Your task to perform on an android device: Open the calendar app, open the side menu, and click the "Day" option Image 0: 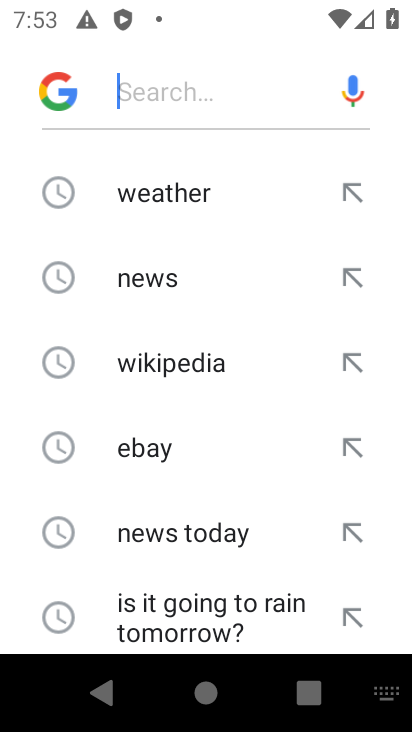
Step 0: press home button
Your task to perform on an android device: Open the calendar app, open the side menu, and click the "Day" option Image 1: 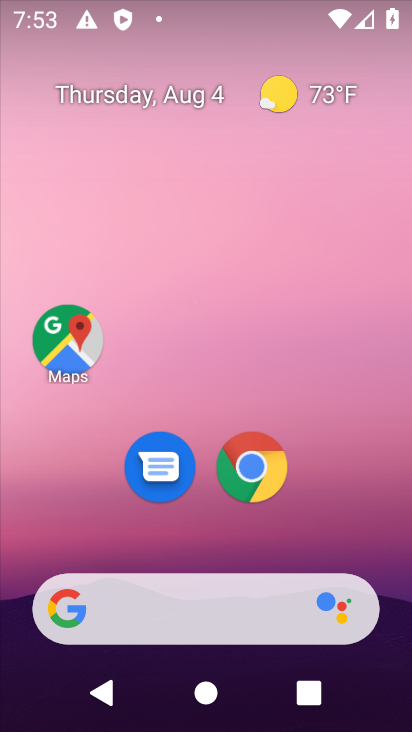
Step 1: drag from (339, 523) to (357, 110)
Your task to perform on an android device: Open the calendar app, open the side menu, and click the "Day" option Image 2: 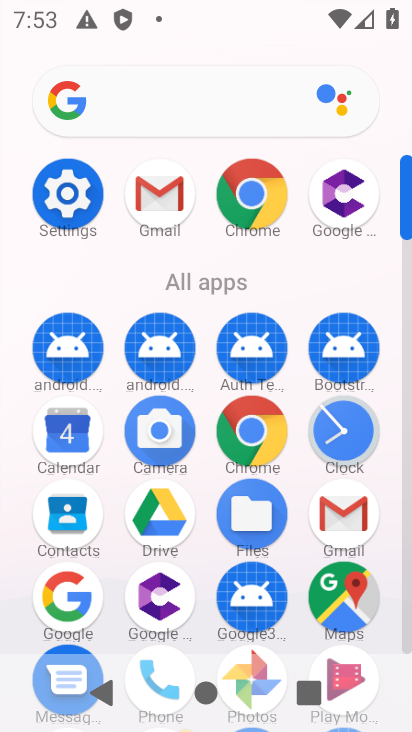
Step 2: click (62, 424)
Your task to perform on an android device: Open the calendar app, open the side menu, and click the "Day" option Image 3: 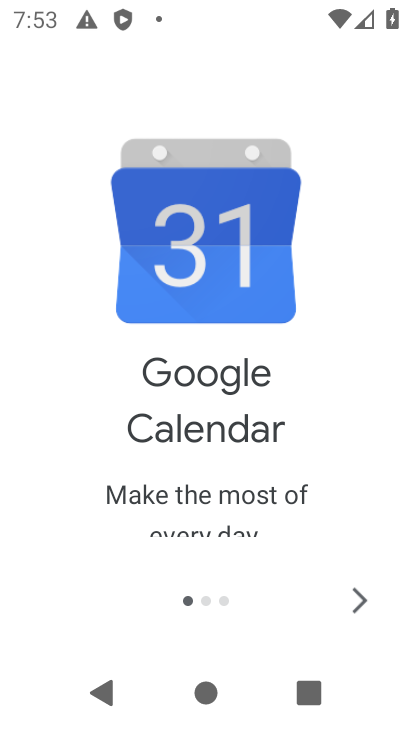
Step 3: click (361, 591)
Your task to perform on an android device: Open the calendar app, open the side menu, and click the "Day" option Image 4: 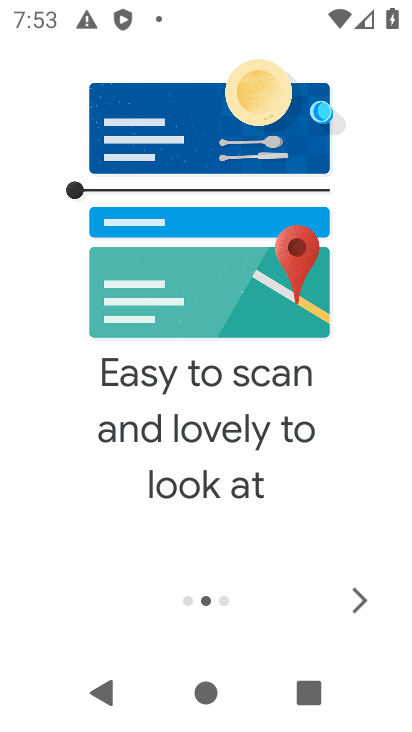
Step 4: click (361, 591)
Your task to perform on an android device: Open the calendar app, open the side menu, and click the "Day" option Image 5: 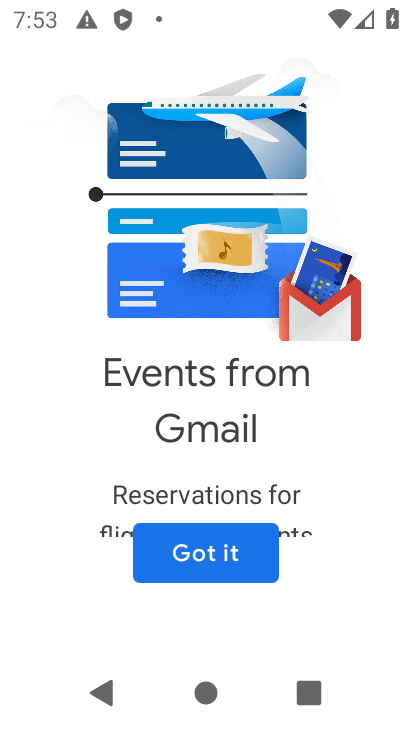
Step 5: click (218, 544)
Your task to perform on an android device: Open the calendar app, open the side menu, and click the "Day" option Image 6: 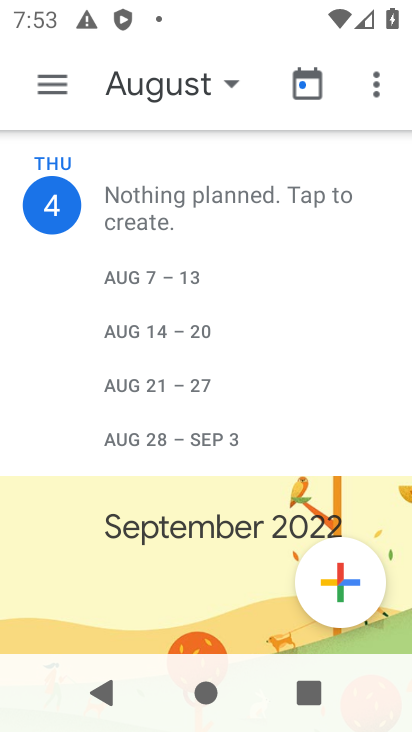
Step 6: click (203, 72)
Your task to perform on an android device: Open the calendar app, open the side menu, and click the "Day" option Image 7: 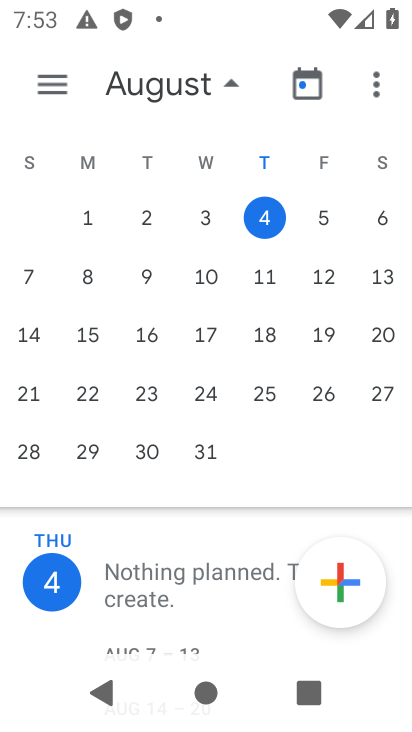
Step 7: click (32, 78)
Your task to perform on an android device: Open the calendar app, open the side menu, and click the "Day" option Image 8: 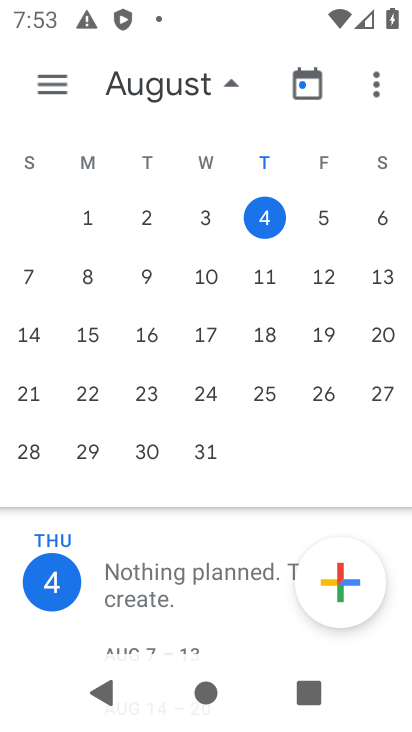
Step 8: click (41, 78)
Your task to perform on an android device: Open the calendar app, open the side menu, and click the "Day" option Image 9: 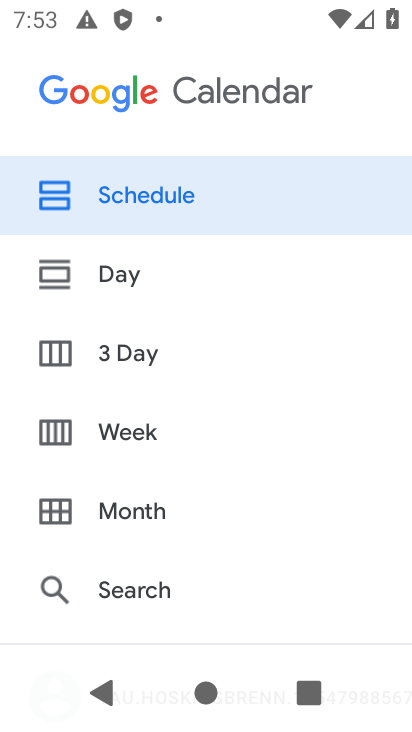
Step 9: click (127, 271)
Your task to perform on an android device: Open the calendar app, open the side menu, and click the "Day" option Image 10: 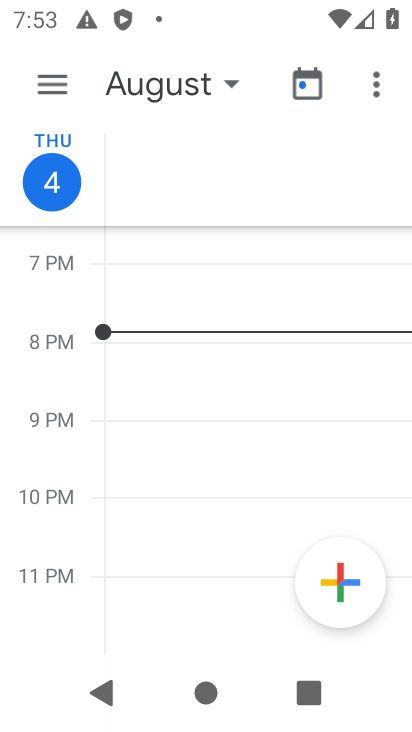
Step 10: task complete